Your task to perform on an android device: Go to Google maps Image 0: 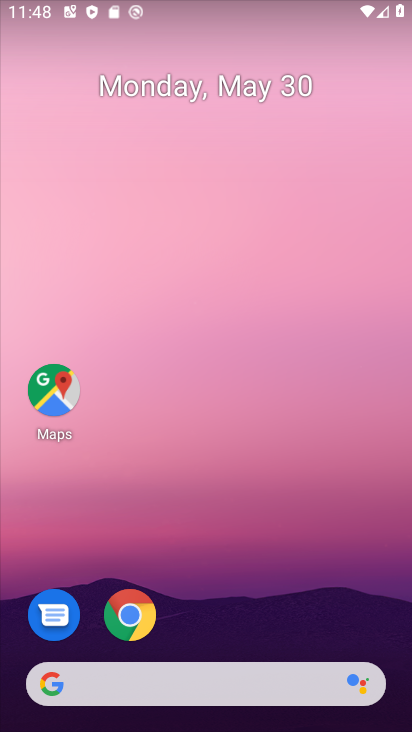
Step 0: drag from (368, 598) to (350, 156)
Your task to perform on an android device: Go to Google maps Image 1: 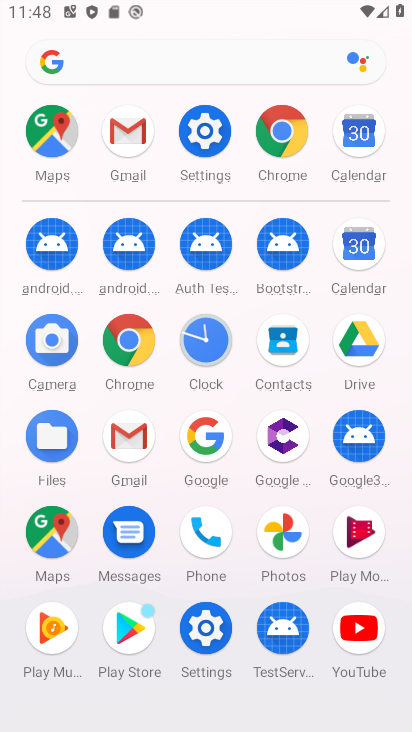
Step 1: click (49, 539)
Your task to perform on an android device: Go to Google maps Image 2: 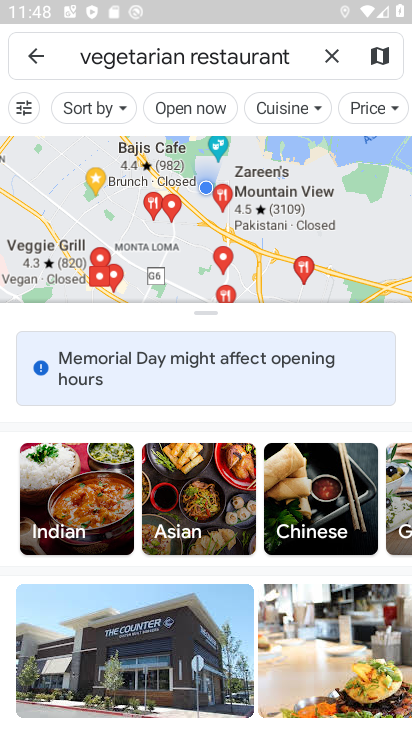
Step 2: task complete